Your task to perform on an android device: check the backup settings in the google photos Image 0: 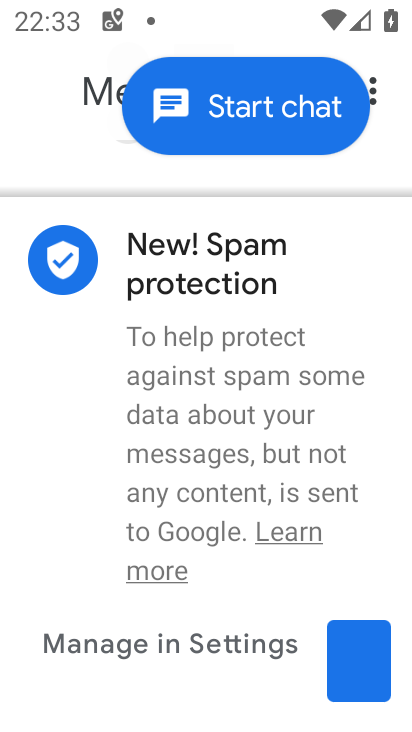
Step 0: press home button
Your task to perform on an android device: check the backup settings in the google photos Image 1: 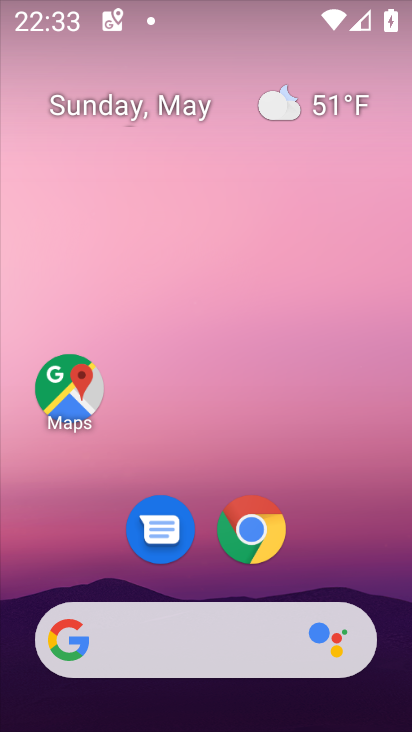
Step 1: drag from (317, 593) to (296, 39)
Your task to perform on an android device: check the backup settings in the google photos Image 2: 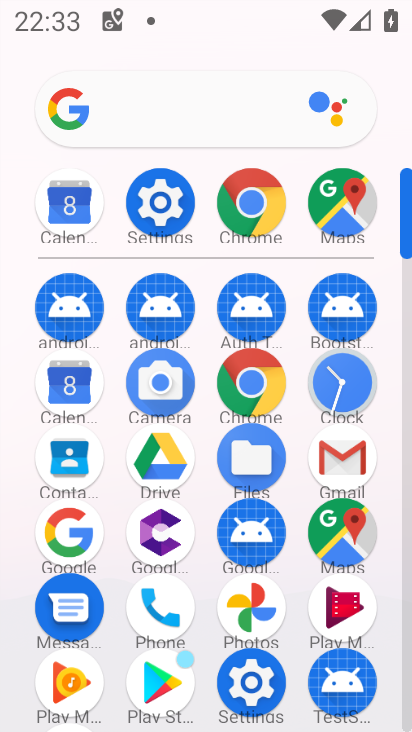
Step 2: click (342, 455)
Your task to perform on an android device: check the backup settings in the google photos Image 3: 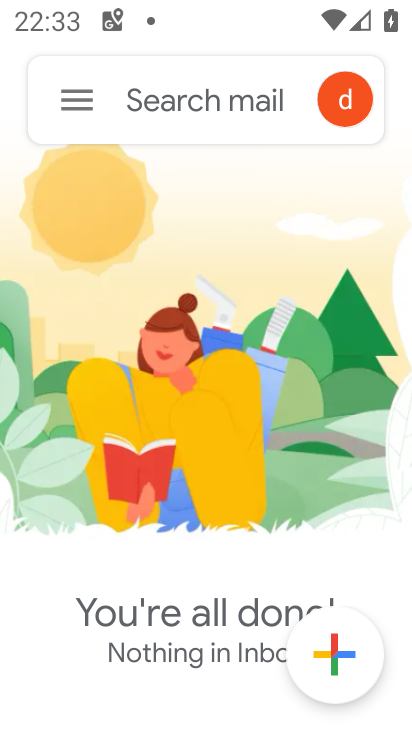
Step 3: press home button
Your task to perform on an android device: check the backup settings in the google photos Image 4: 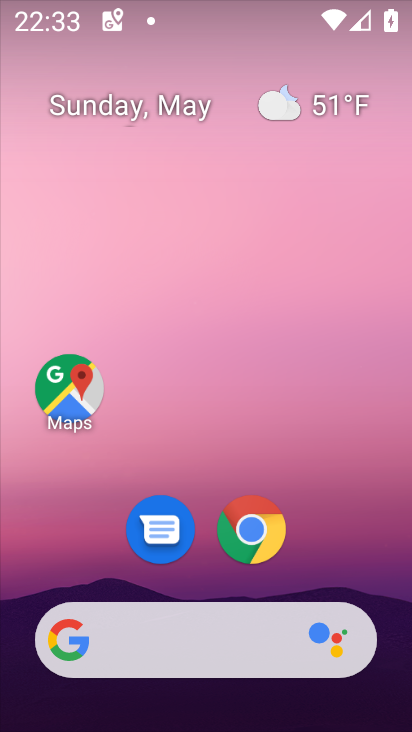
Step 4: drag from (288, 609) to (264, 70)
Your task to perform on an android device: check the backup settings in the google photos Image 5: 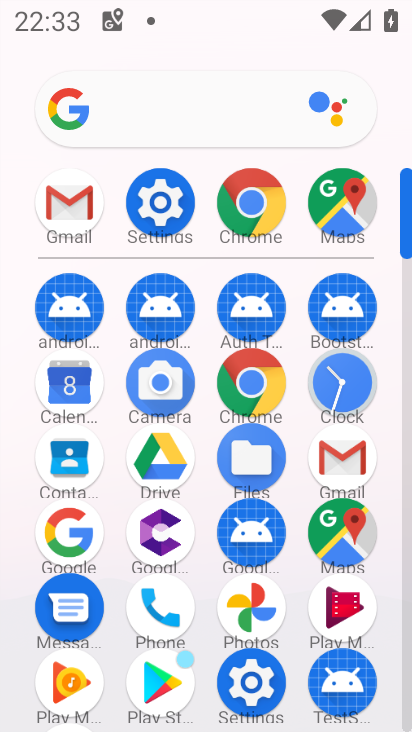
Step 5: click (239, 611)
Your task to perform on an android device: check the backup settings in the google photos Image 6: 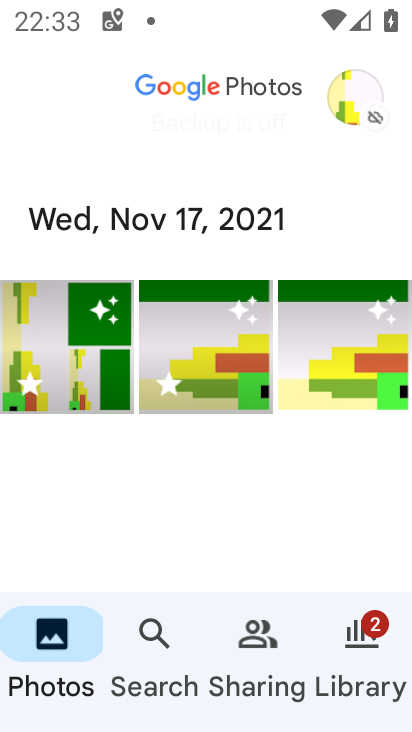
Step 6: click (367, 94)
Your task to perform on an android device: check the backup settings in the google photos Image 7: 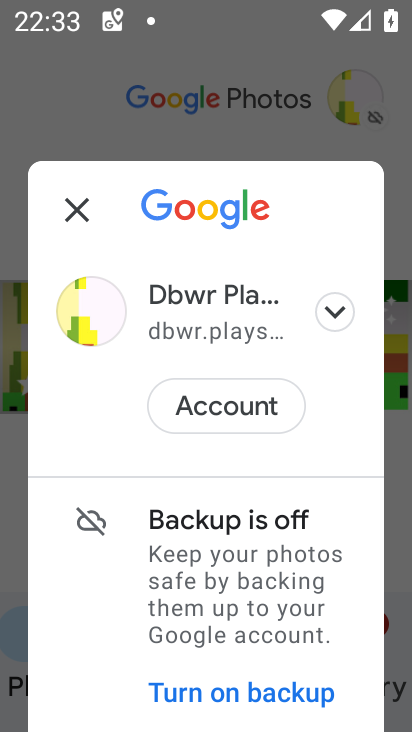
Step 7: drag from (237, 600) to (252, 285)
Your task to perform on an android device: check the backup settings in the google photos Image 8: 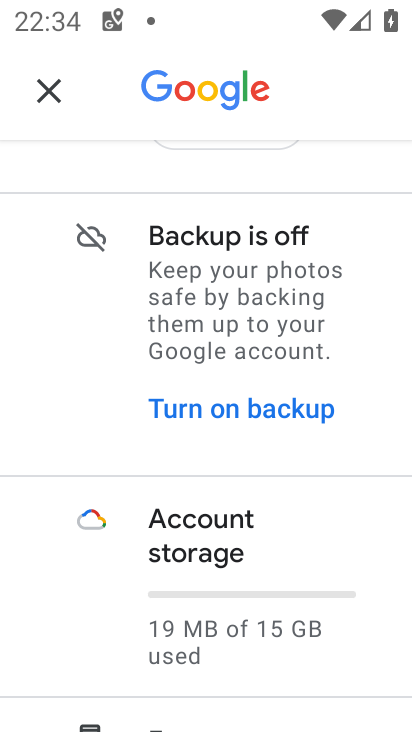
Step 8: click (282, 404)
Your task to perform on an android device: check the backup settings in the google photos Image 9: 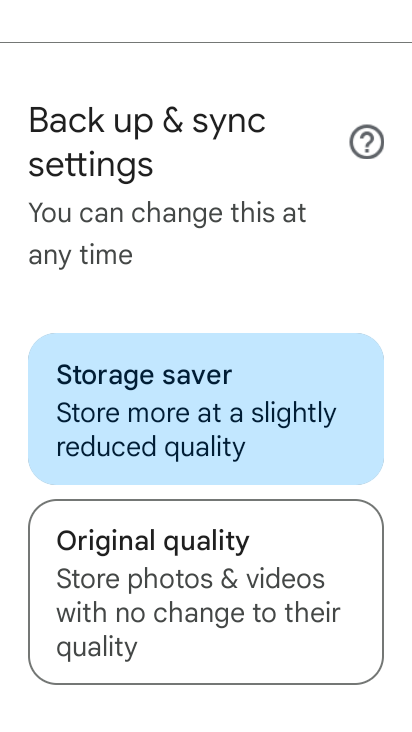
Step 9: click (202, 191)
Your task to perform on an android device: check the backup settings in the google photos Image 10: 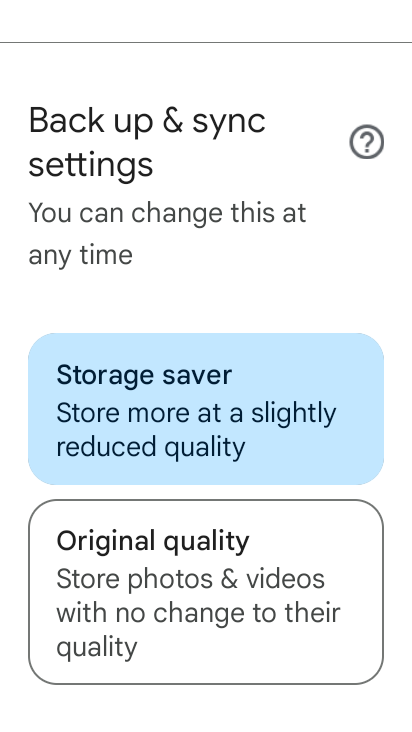
Step 10: click (291, 582)
Your task to perform on an android device: check the backup settings in the google photos Image 11: 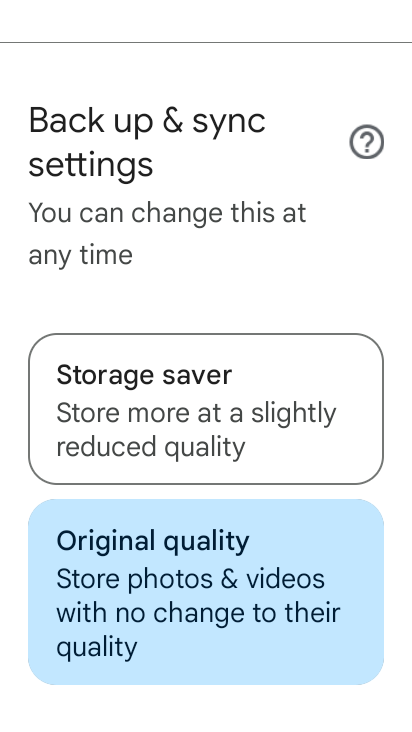
Step 11: press back button
Your task to perform on an android device: check the backup settings in the google photos Image 12: 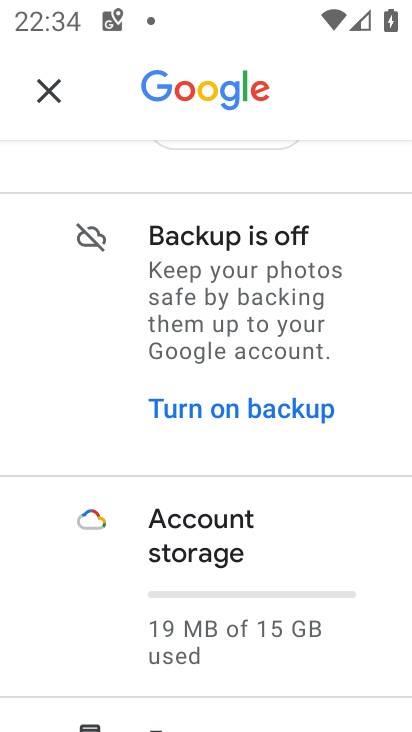
Step 12: drag from (198, 274) to (257, 269)
Your task to perform on an android device: check the backup settings in the google photos Image 13: 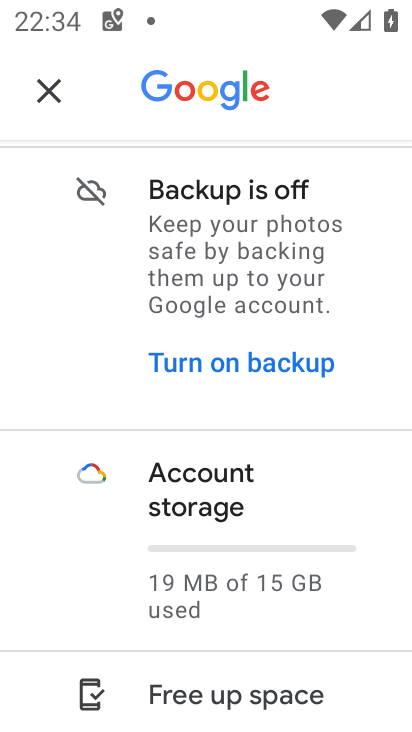
Step 13: drag from (332, 650) to (309, 262)
Your task to perform on an android device: check the backup settings in the google photos Image 14: 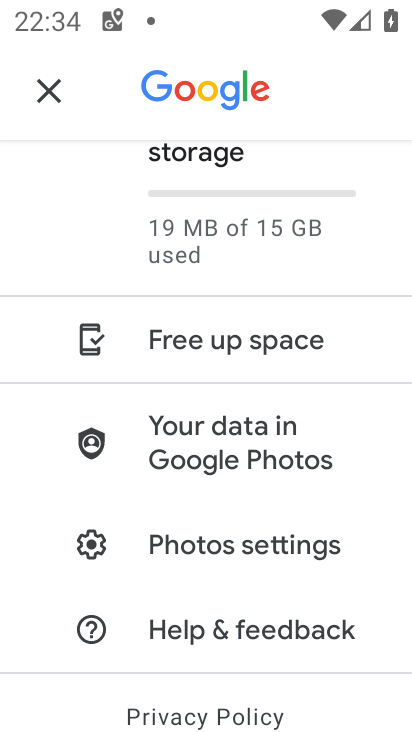
Step 14: click (295, 548)
Your task to perform on an android device: check the backup settings in the google photos Image 15: 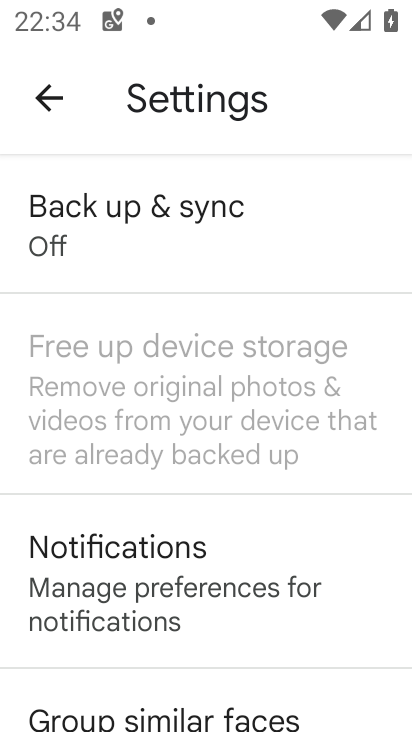
Step 15: click (234, 216)
Your task to perform on an android device: check the backup settings in the google photos Image 16: 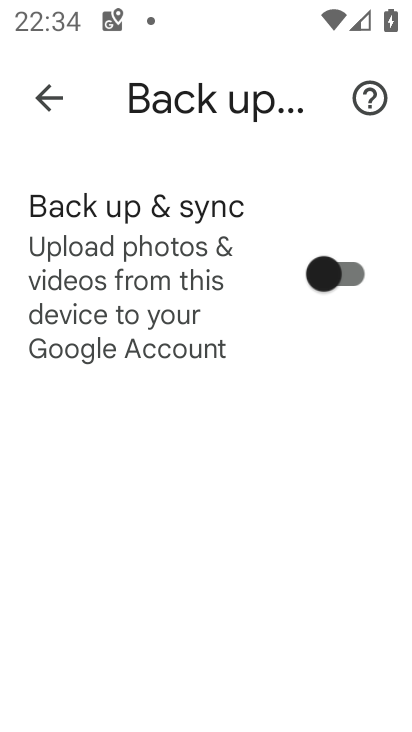
Step 16: click (352, 268)
Your task to perform on an android device: check the backup settings in the google photos Image 17: 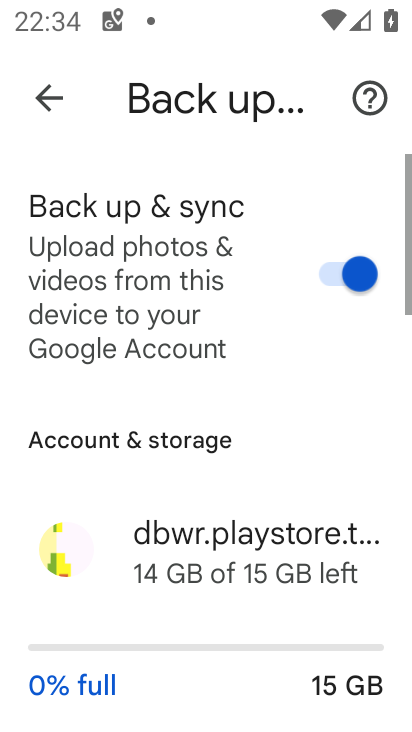
Step 17: task complete